Your task to perform on an android device: Go to sound settings Image 0: 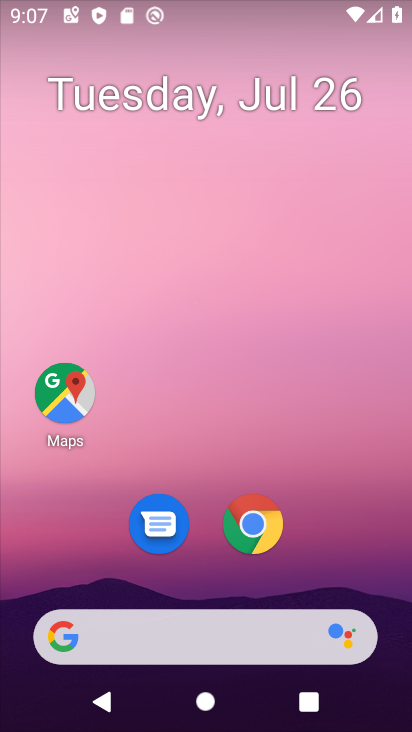
Step 0: drag from (229, 633) to (324, 8)
Your task to perform on an android device: Go to sound settings Image 1: 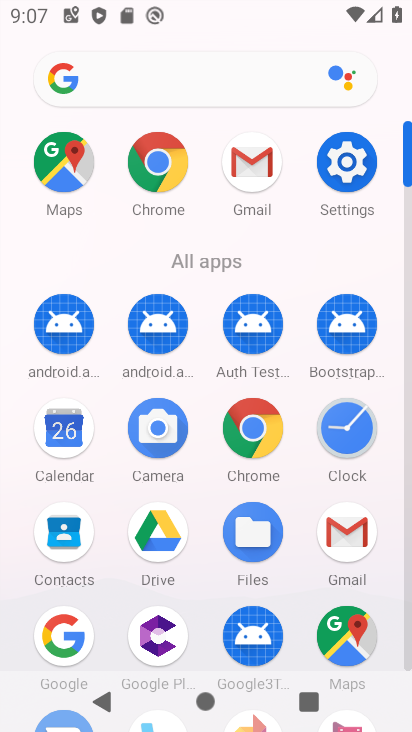
Step 1: click (345, 166)
Your task to perform on an android device: Go to sound settings Image 2: 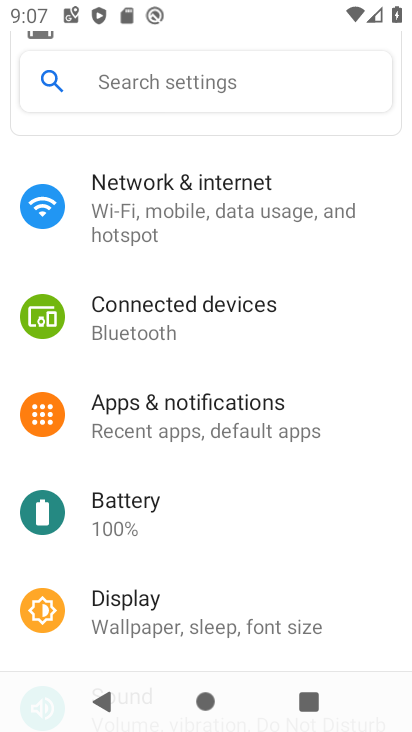
Step 2: drag from (181, 602) to (348, 80)
Your task to perform on an android device: Go to sound settings Image 3: 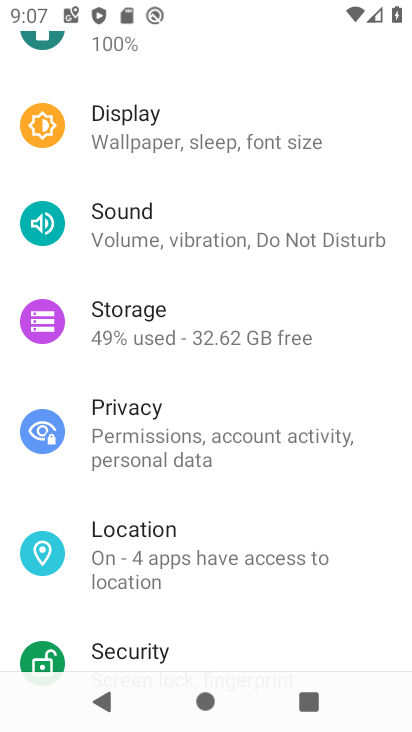
Step 3: click (152, 240)
Your task to perform on an android device: Go to sound settings Image 4: 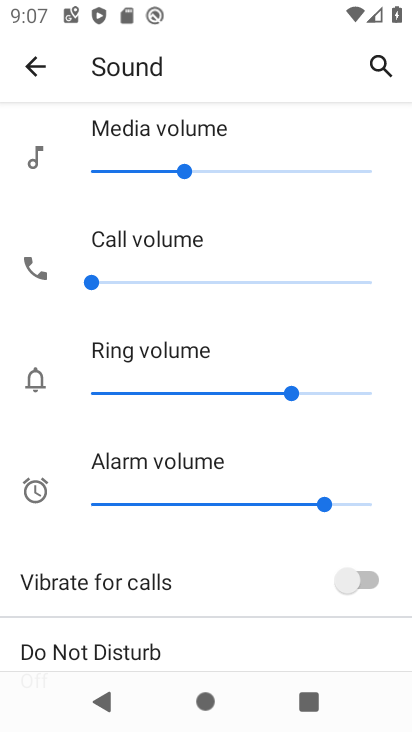
Step 4: task complete